Your task to perform on an android device: Open Google Maps Image 0: 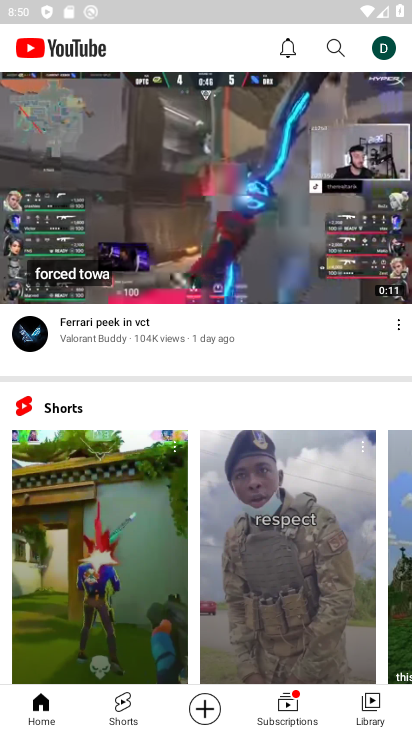
Step 0: press home button
Your task to perform on an android device: Open Google Maps Image 1: 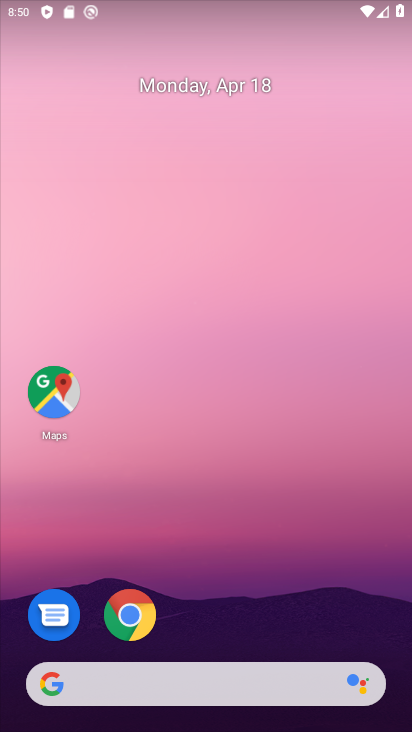
Step 1: click (49, 381)
Your task to perform on an android device: Open Google Maps Image 2: 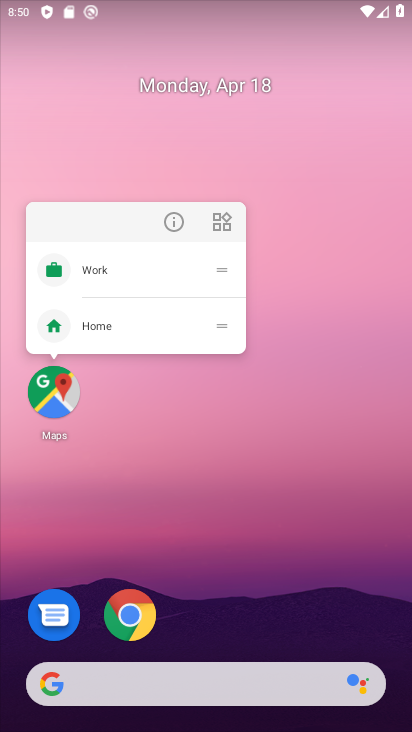
Step 2: click (57, 399)
Your task to perform on an android device: Open Google Maps Image 3: 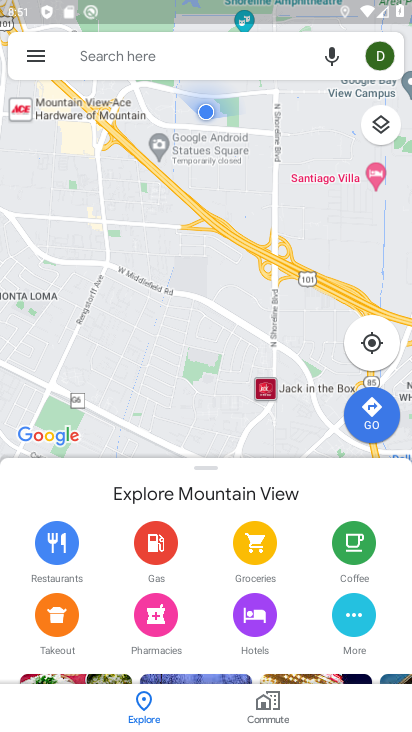
Step 3: task complete